Your task to perform on an android device: find snoozed emails in the gmail app Image 0: 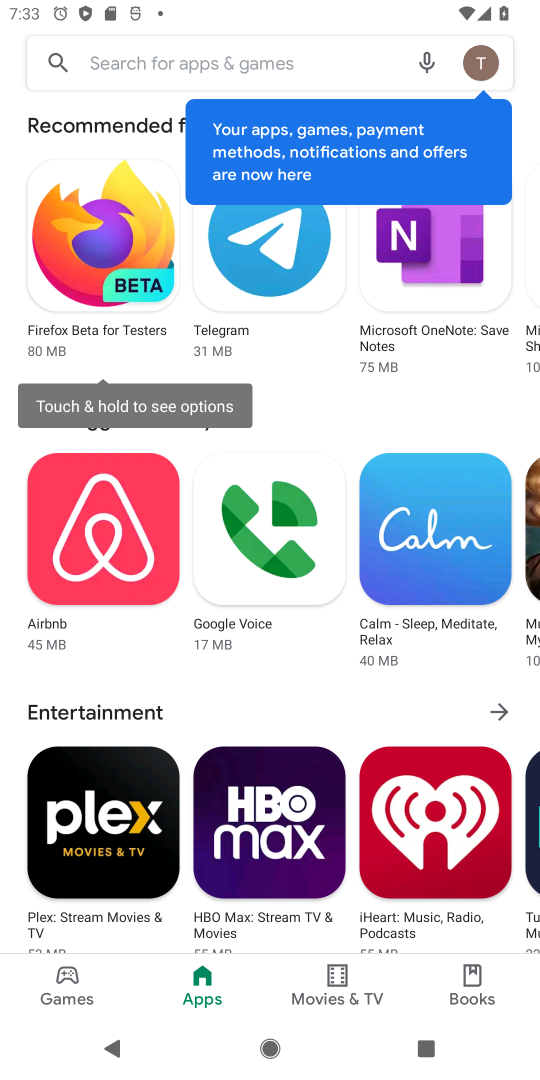
Step 0: press back button
Your task to perform on an android device: find snoozed emails in the gmail app Image 1: 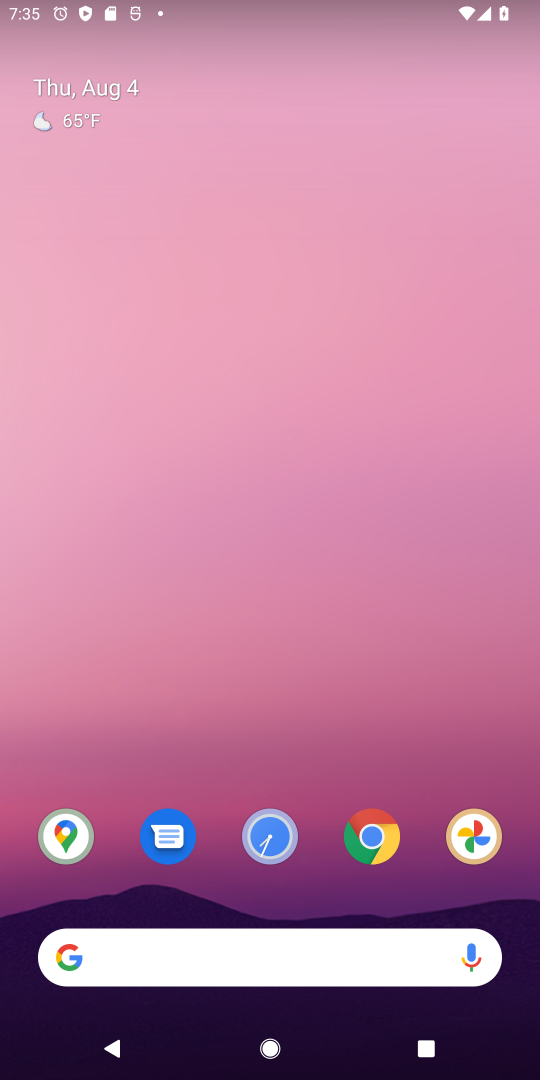
Step 1: drag from (270, 370) to (311, 3)
Your task to perform on an android device: find snoozed emails in the gmail app Image 2: 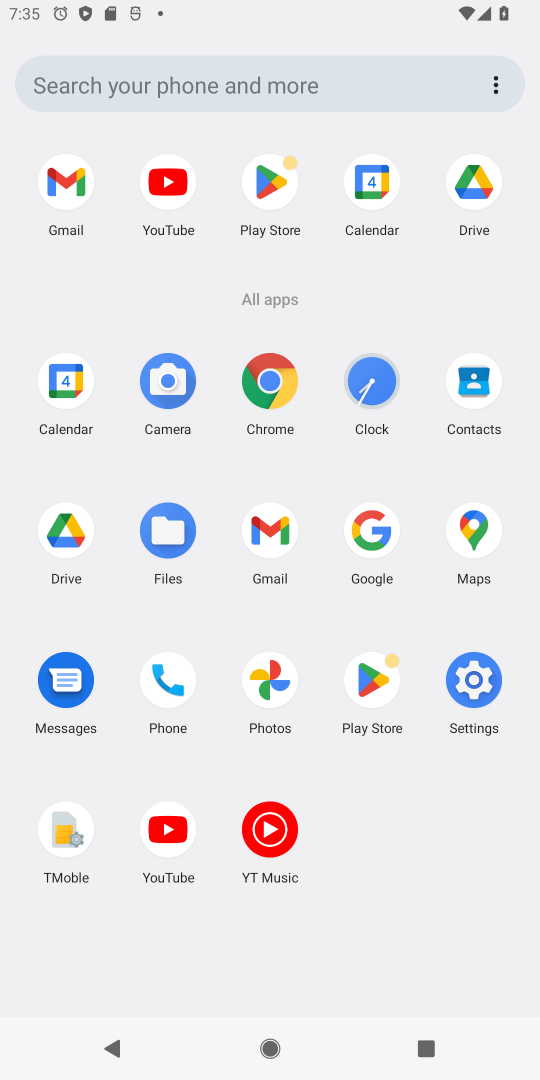
Step 2: click (260, 503)
Your task to perform on an android device: find snoozed emails in the gmail app Image 3: 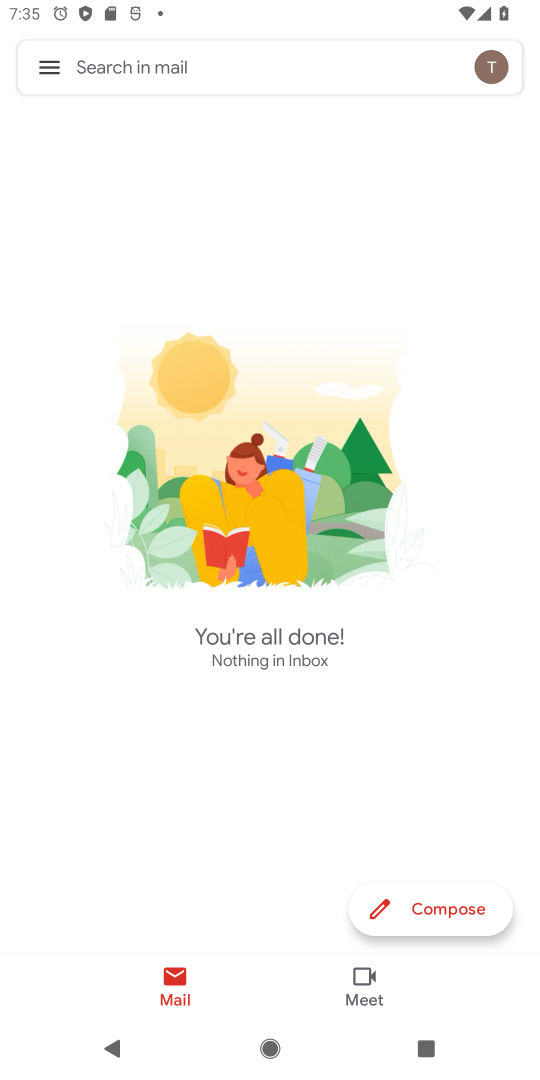
Step 3: click (52, 57)
Your task to perform on an android device: find snoozed emails in the gmail app Image 4: 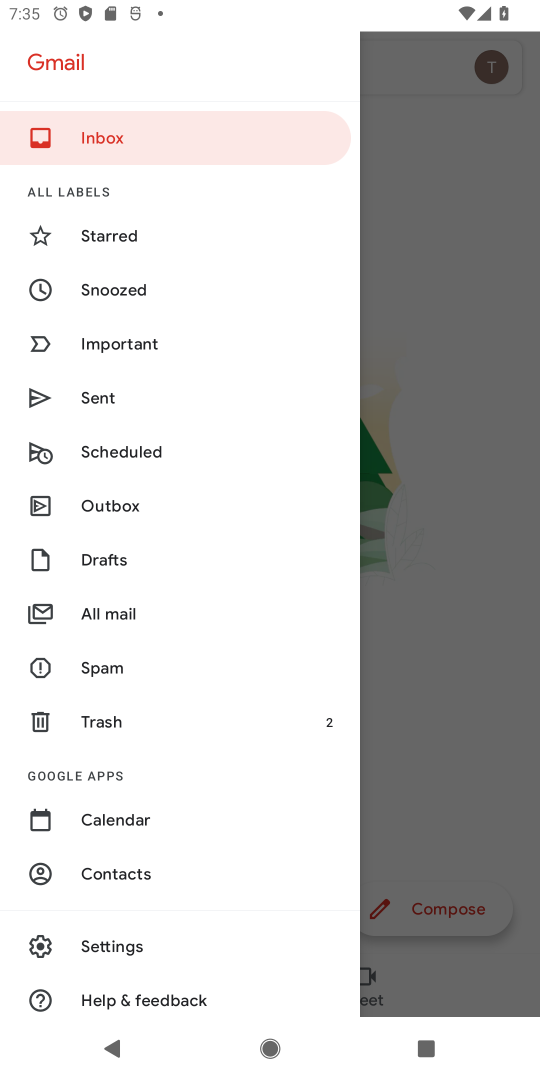
Step 4: click (126, 294)
Your task to perform on an android device: find snoozed emails in the gmail app Image 5: 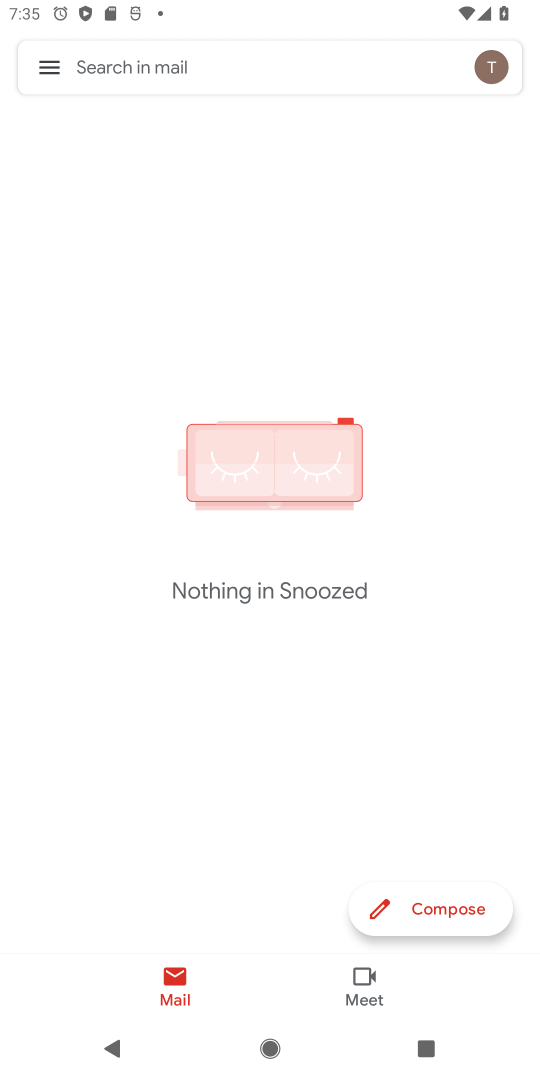
Step 5: task complete